Your task to perform on an android device: turn off translation in the chrome app Image 0: 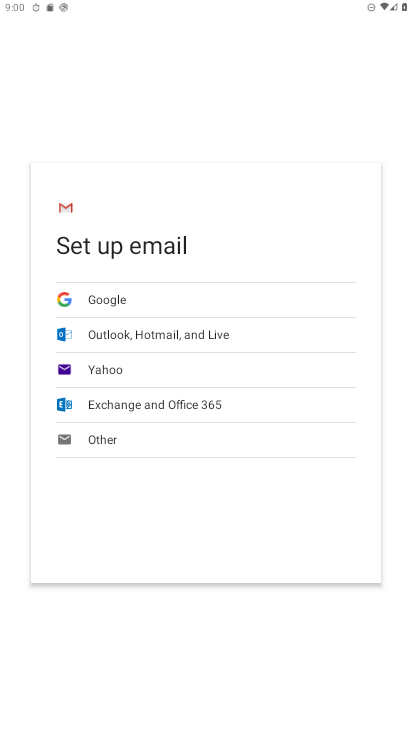
Step 0: press home button
Your task to perform on an android device: turn off translation in the chrome app Image 1: 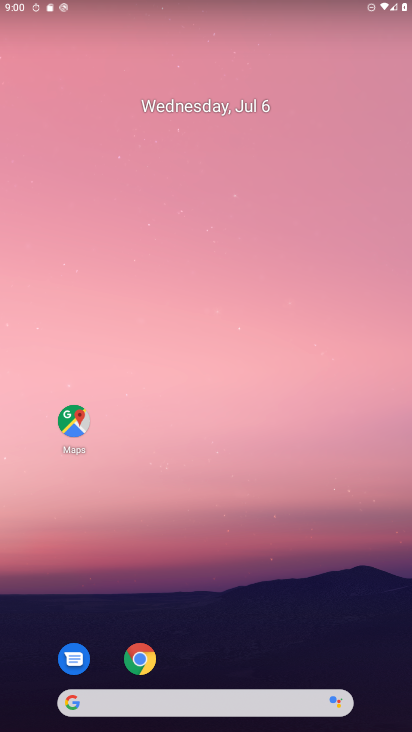
Step 1: drag from (340, 637) to (344, 171)
Your task to perform on an android device: turn off translation in the chrome app Image 2: 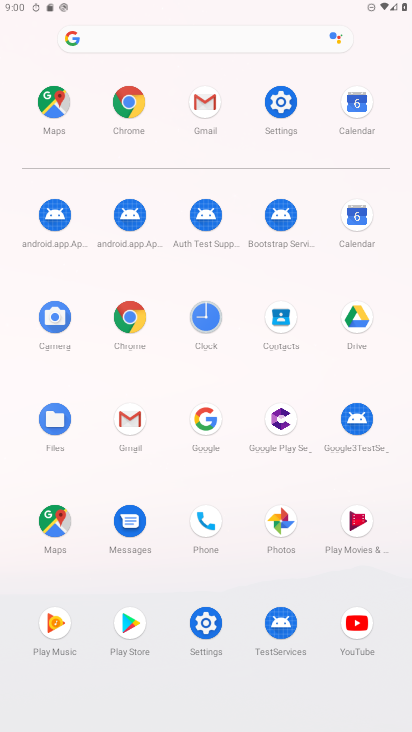
Step 2: click (138, 317)
Your task to perform on an android device: turn off translation in the chrome app Image 3: 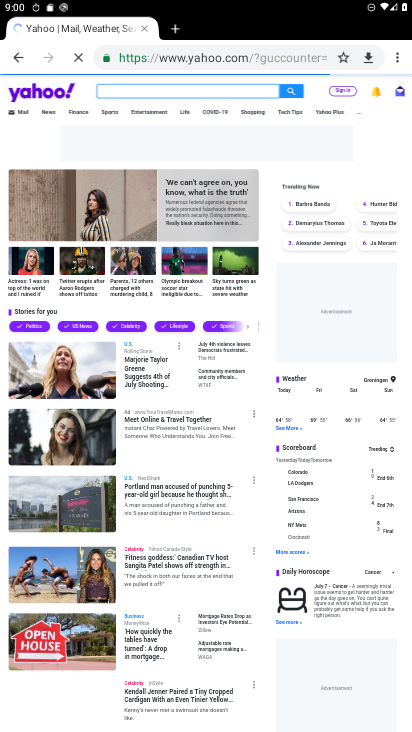
Step 3: click (396, 62)
Your task to perform on an android device: turn off translation in the chrome app Image 4: 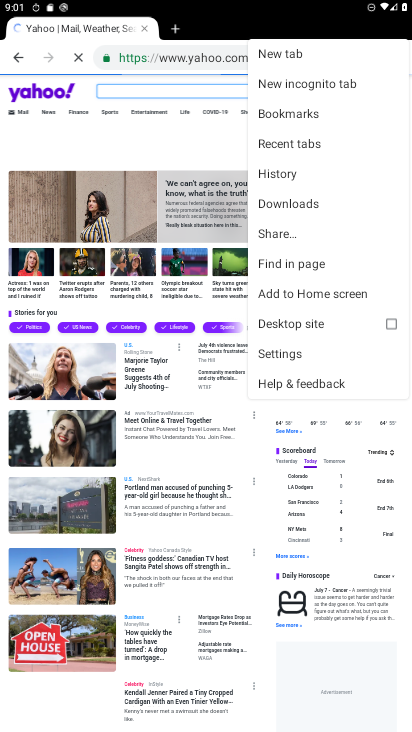
Step 4: click (288, 353)
Your task to perform on an android device: turn off translation in the chrome app Image 5: 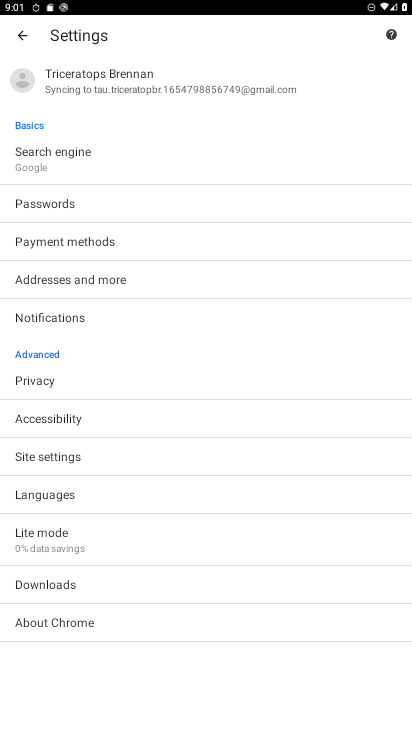
Step 5: click (229, 503)
Your task to perform on an android device: turn off translation in the chrome app Image 6: 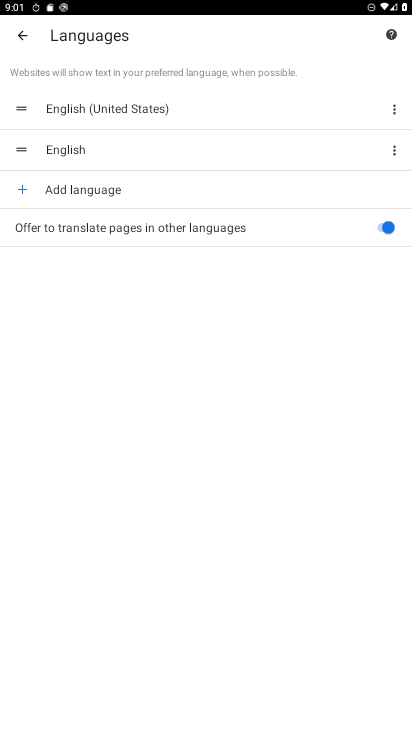
Step 6: click (381, 226)
Your task to perform on an android device: turn off translation in the chrome app Image 7: 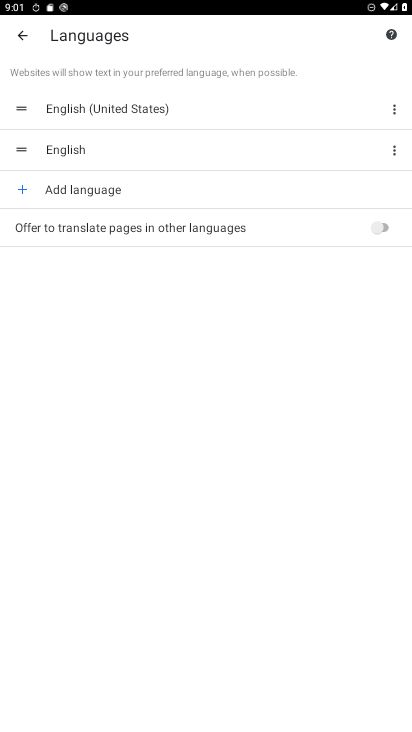
Step 7: task complete